Your task to perform on an android device: find which apps use the phone's location Image 0: 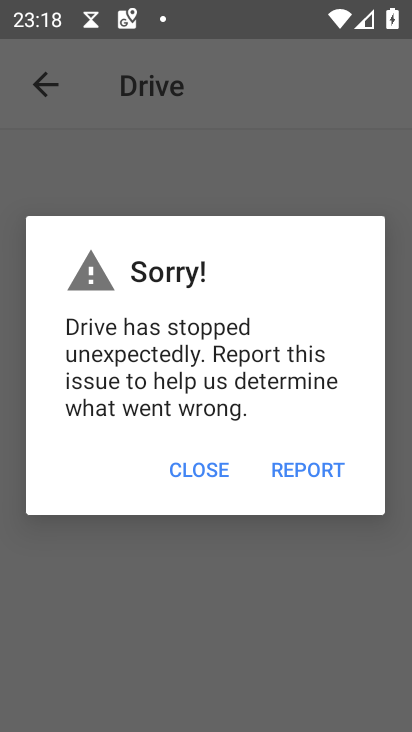
Step 0: press home button
Your task to perform on an android device: find which apps use the phone's location Image 1: 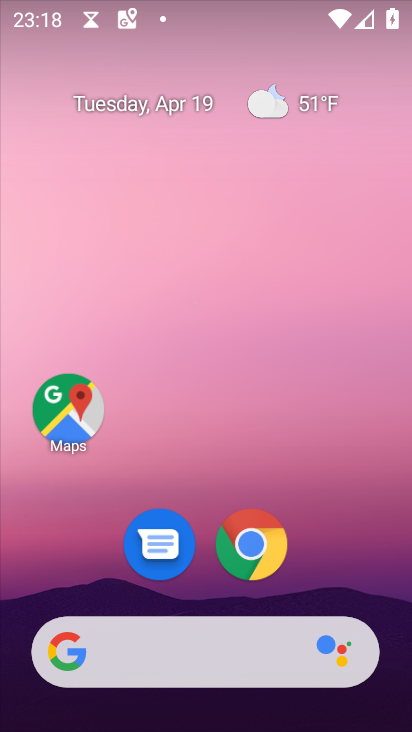
Step 1: drag from (321, 571) to (328, 82)
Your task to perform on an android device: find which apps use the phone's location Image 2: 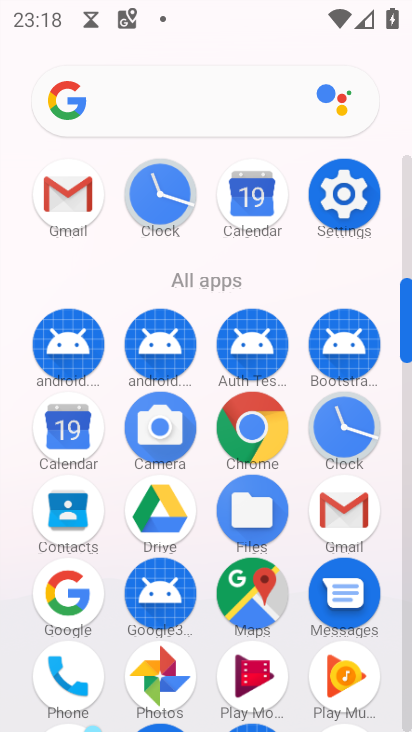
Step 2: click (347, 200)
Your task to perform on an android device: find which apps use the phone's location Image 3: 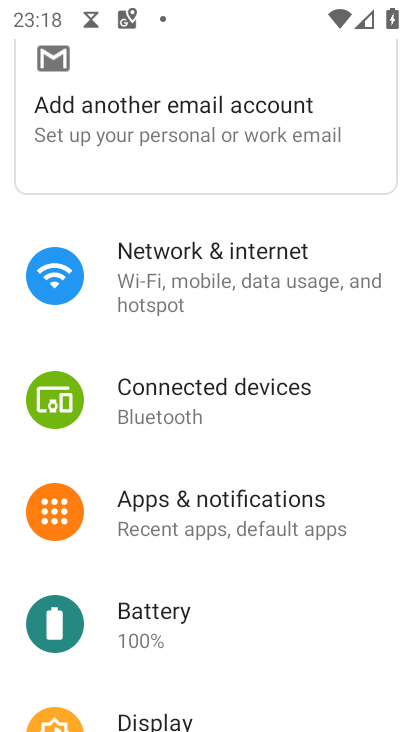
Step 3: drag from (229, 495) to (230, 415)
Your task to perform on an android device: find which apps use the phone's location Image 4: 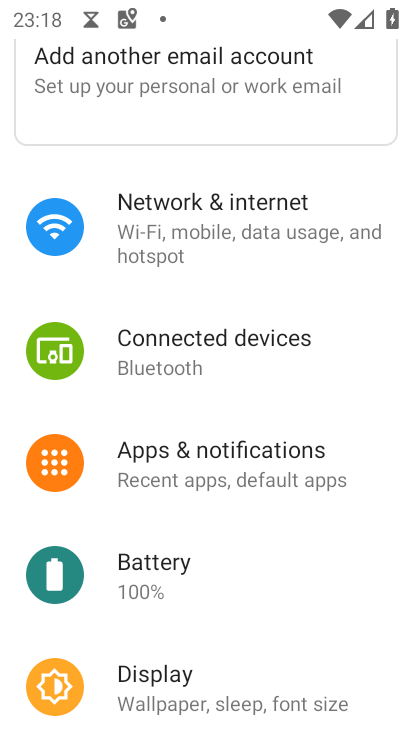
Step 4: drag from (268, 529) to (253, 437)
Your task to perform on an android device: find which apps use the phone's location Image 5: 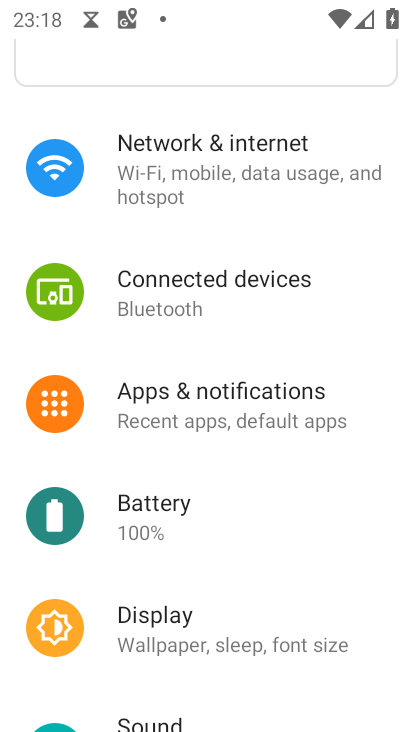
Step 5: drag from (255, 515) to (251, 421)
Your task to perform on an android device: find which apps use the phone's location Image 6: 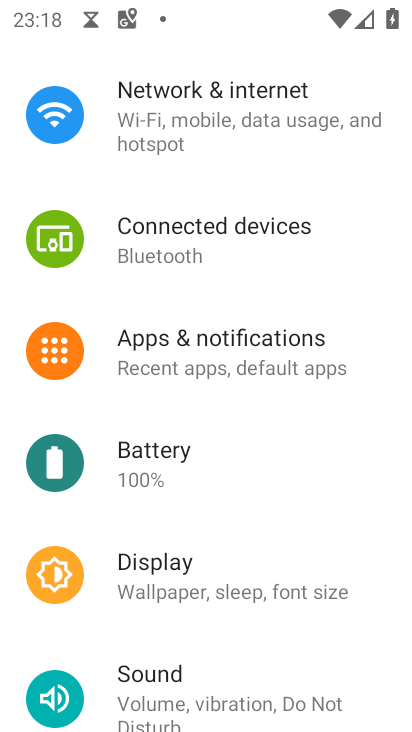
Step 6: drag from (239, 484) to (229, 425)
Your task to perform on an android device: find which apps use the phone's location Image 7: 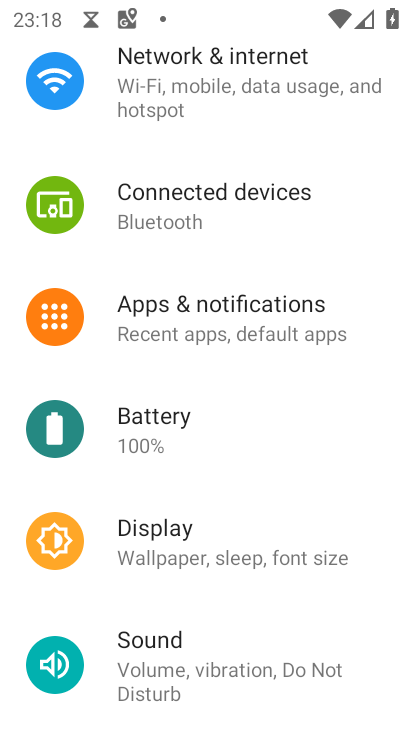
Step 7: drag from (240, 476) to (241, 401)
Your task to perform on an android device: find which apps use the phone's location Image 8: 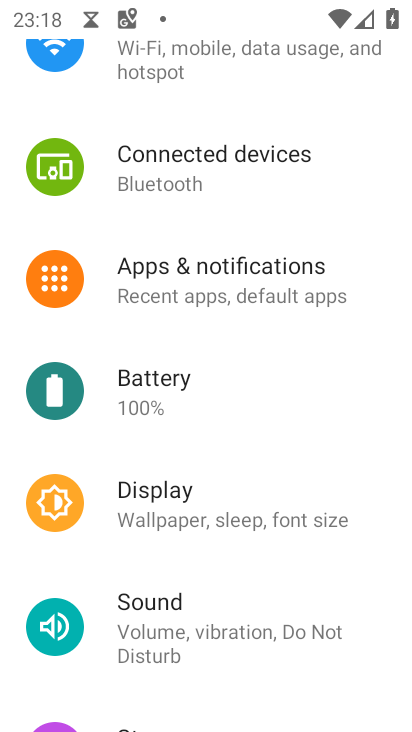
Step 8: drag from (253, 499) to (254, 411)
Your task to perform on an android device: find which apps use the phone's location Image 9: 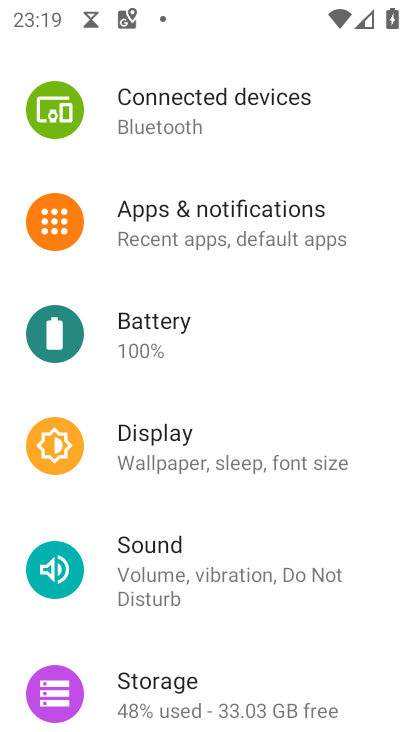
Step 9: drag from (249, 490) to (252, 424)
Your task to perform on an android device: find which apps use the phone's location Image 10: 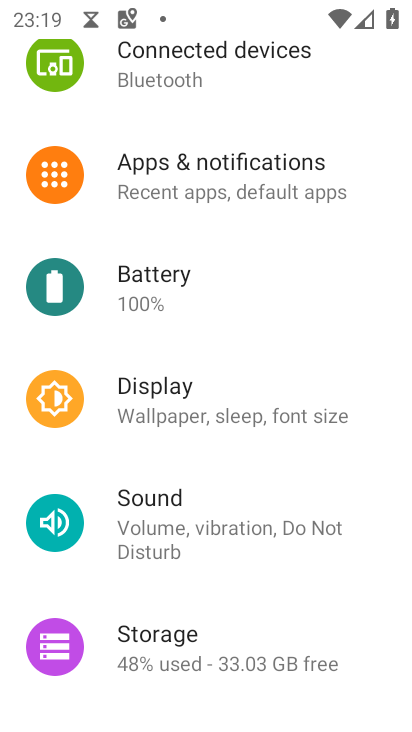
Step 10: drag from (254, 491) to (248, 416)
Your task to perform on an android device: find which apps use the phone's location Image 11: 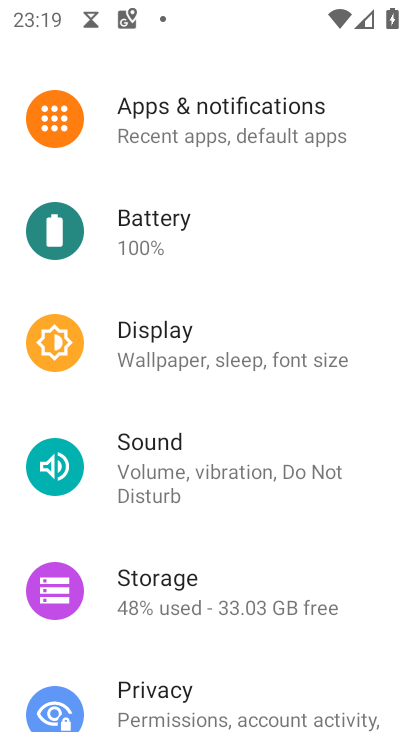
Step 11: drag from (254, 525) to (253, 455)
Your task to perform on an android device: find which apps use the phone's location Image 12: 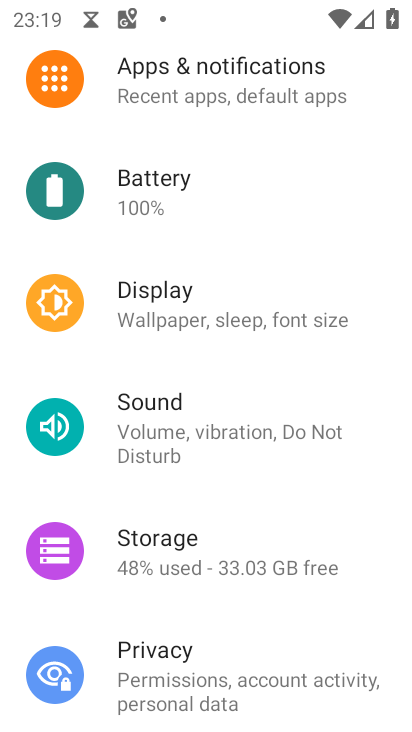
Step 12: drag from (254, 516) to (257, 430)
Your task to perform on an android device: find which apps use the phone's location Image 13: 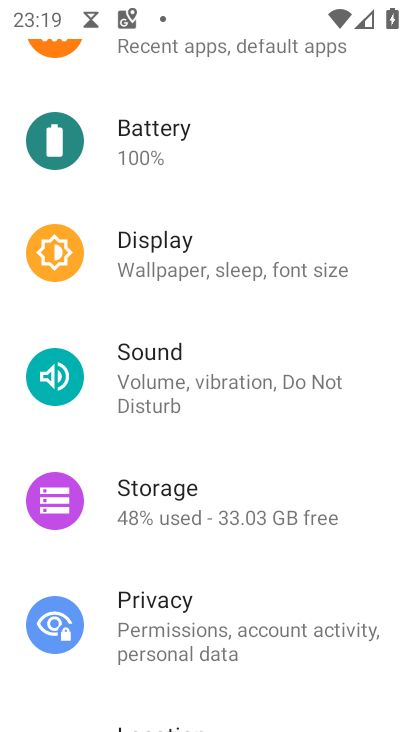
Step 13: drag from (259, 564) to (251, 484)
Your task to perform on an android device: find which apps use the phone's location Image 14: 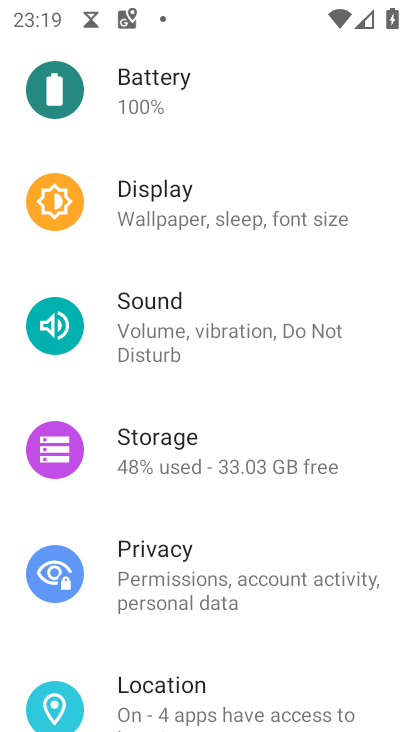
Step 14: click (212, 686)
Your task to perform on an android device: find which apps use the phone's location Image 15: 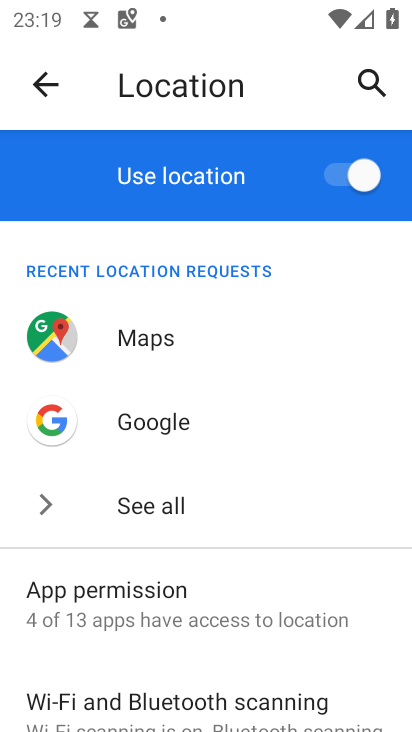
Step 15: click (191, 614)
Your task to perform on an android device: find which apps use the phone's location Image 16: 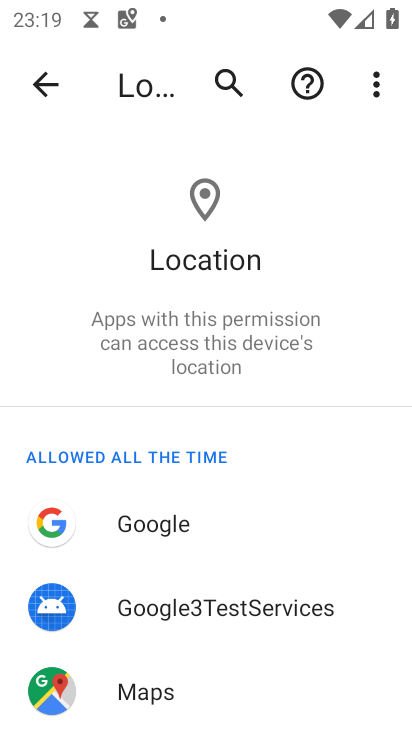
Step 16: task complete